Your task to perform on an android device: all mails in gmail Image 0: 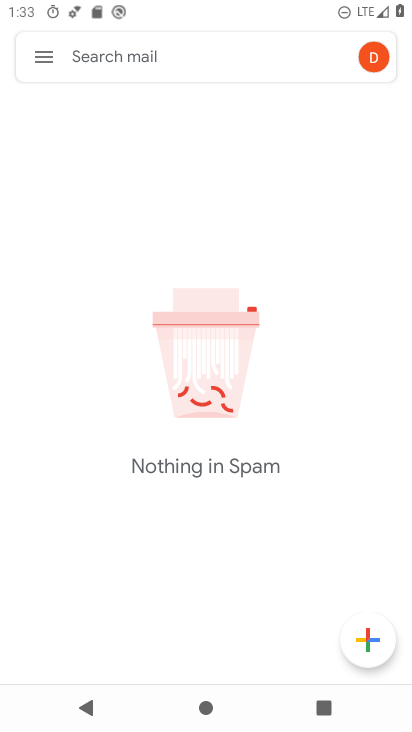
Step 0: press home button
Your task to perform on an android device: all mails in gmail Image 1: 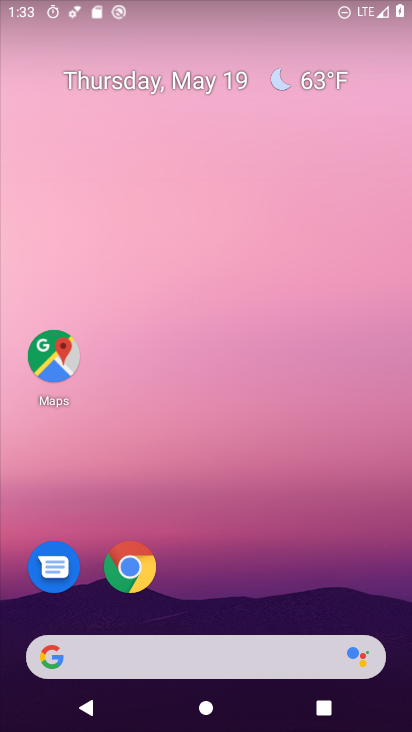
Step 1: drag from (131, 659) to (294, 165)
Your task to perform on an android device: all mails in gmail Image 2: 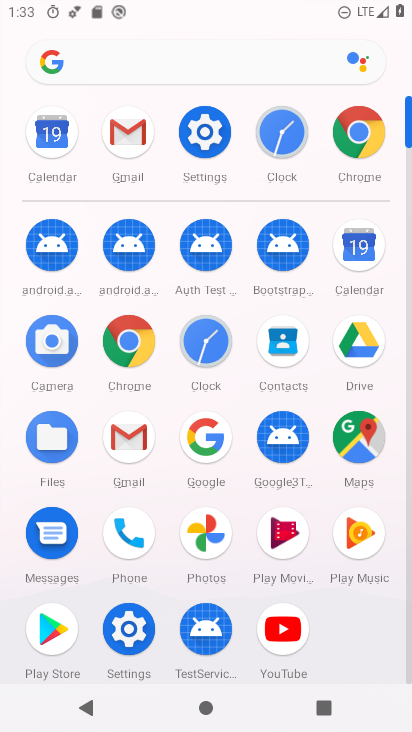
Step 2: click (122, 136)
Your task to perform on an android device: all mails in gmail Image 3: 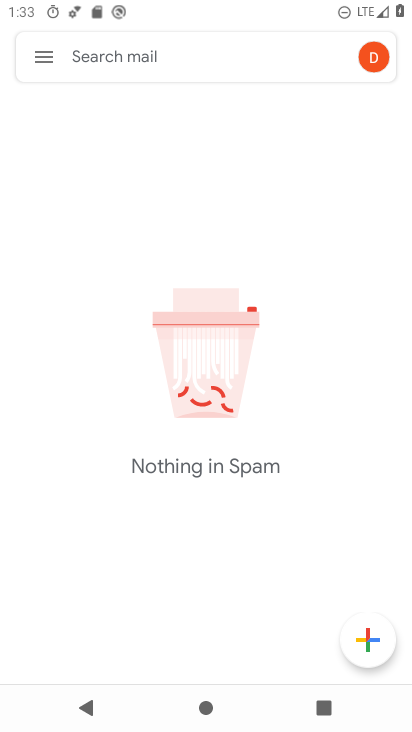
Step 3: click (43, 54)
Your task to perform on an android device: all mails in gmail Image 4: 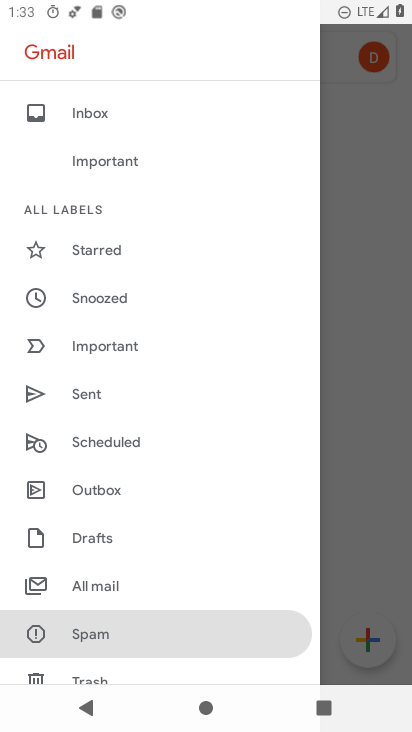
Step 4: click (107, 581)
Your task to perform on an android device: all mails in gmail Image 5: 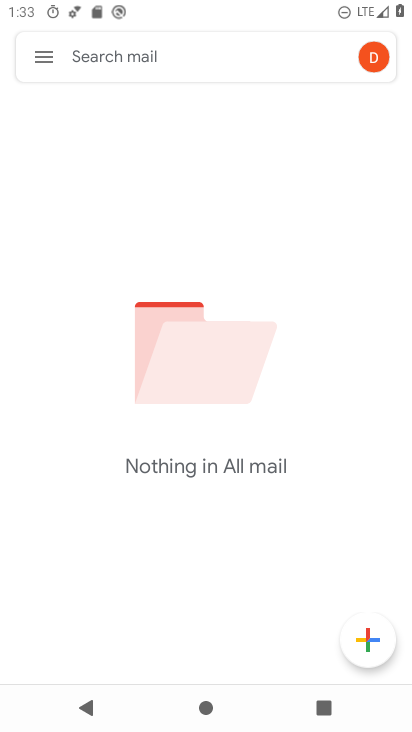
Step 5: task complete